Your task to perform on an android device: When is my next meeting? Image 0: 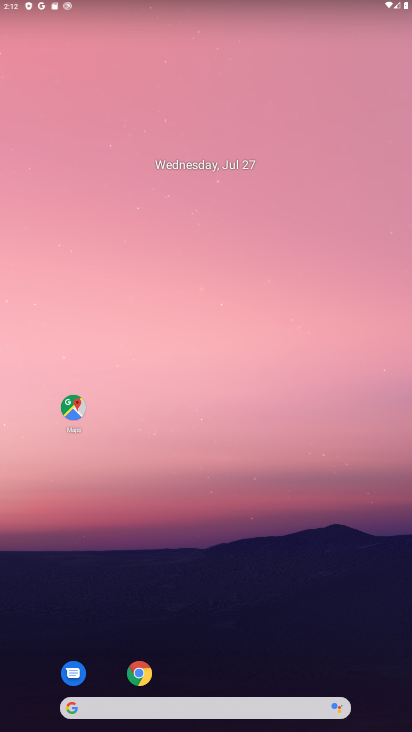
Step 0: drag from (126, 724) to (233, 65)
Your task to perform on an android device: When is my next meeting? Image 1: 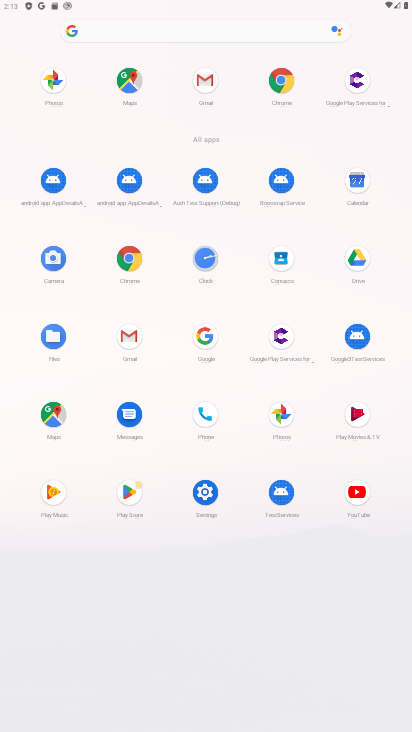
Step 1: click (356, 190)
Your task to perform on an android device: When is my next meeting? Image 2: 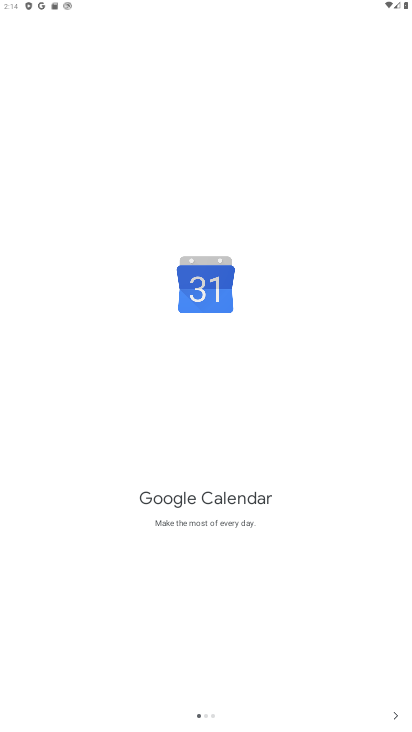
Step 2: click (405, 714)
Your task to perform on an android device: When is my next meeting? Image 3: 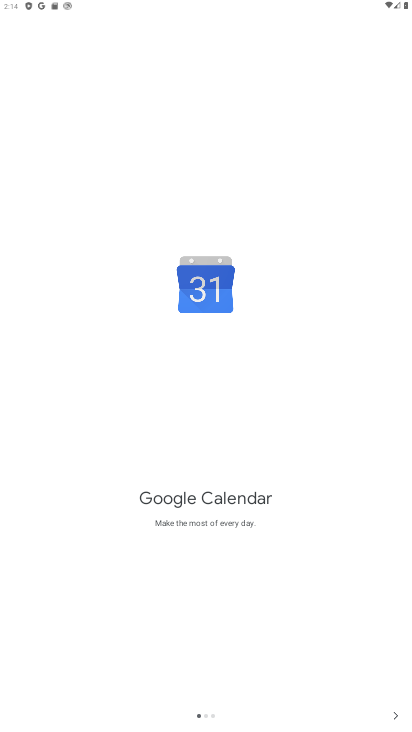
Step 3: click (405, 714)
Your task to perform on an android device: When is my next meeting? Image 4: 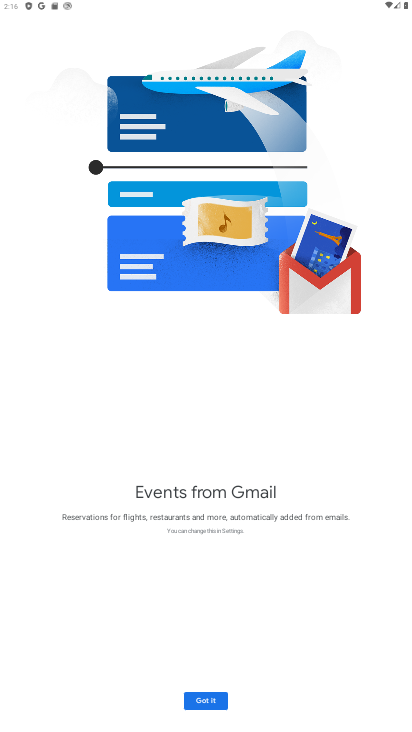
Step 4: click (216, 708)
Your task to perform on an android device: When is my next meeting? Image 5: 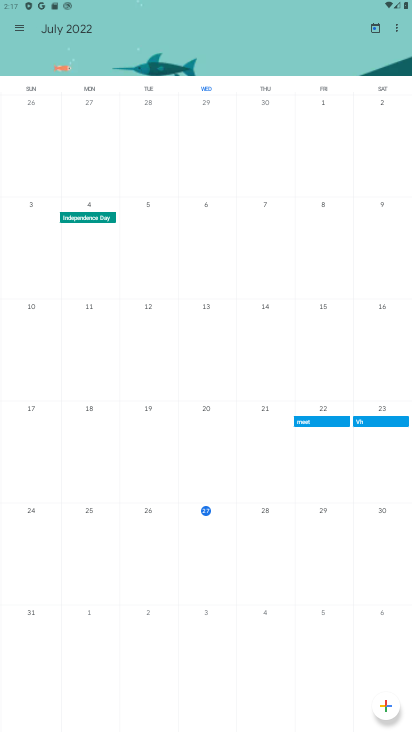
Step 5: click (11, 18)
Your task to perform on an android device: When is my next meeting? Image 6: 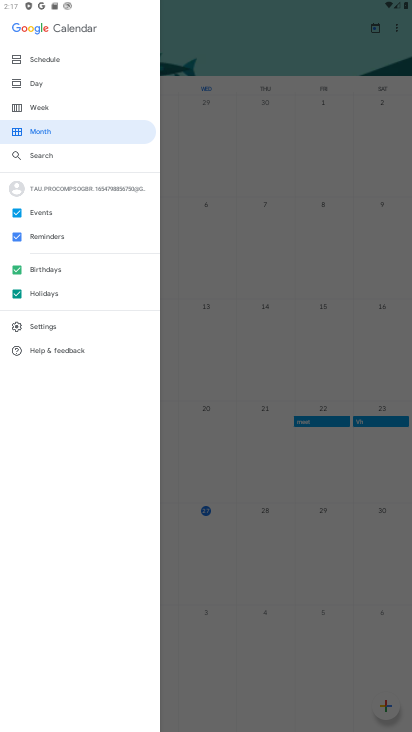
Step 6: click (51, 60)
Your task to perform on an android device: When is my next meeting? Image 7: 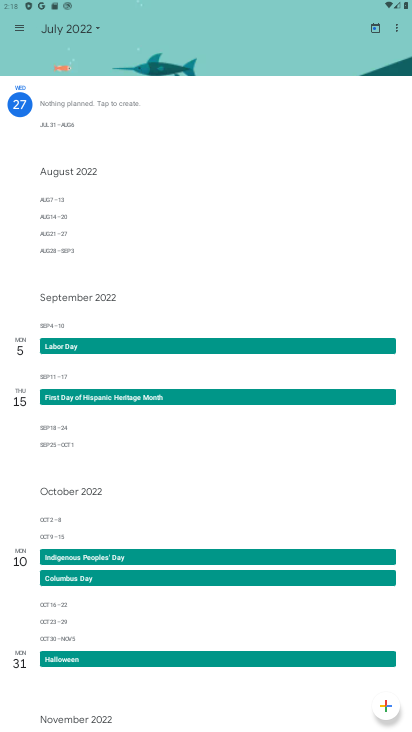
Step 7: task complete